Your task to perform on an android device: Go to notification settings Image 0: 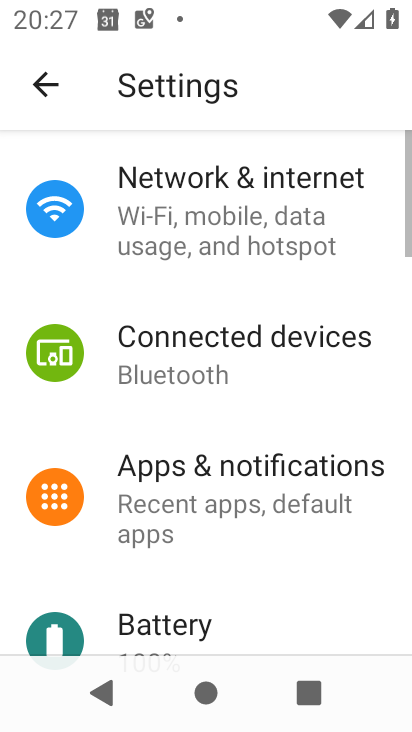
Step 0: click (197, 493)
Your task to perform on an android device: Go to notification settings Image 1: 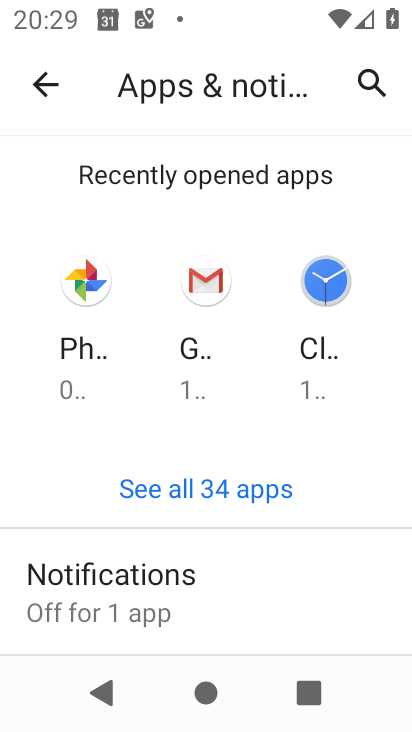
Step 1: task complete